Your task to perform on an android device: turn off improve location accuracy Image 0: 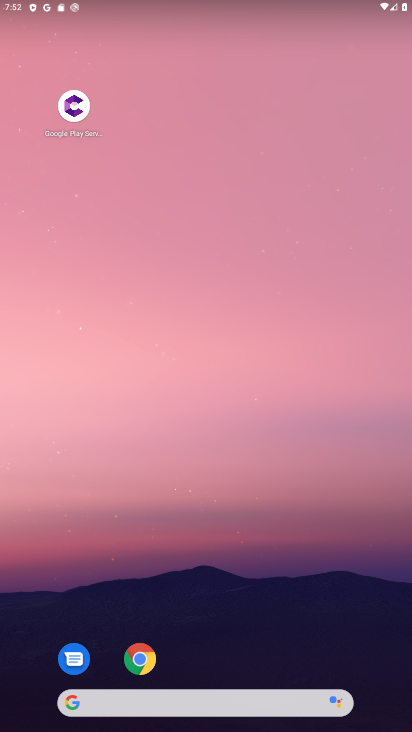
Step 0: drag from (273, 557) to (319, 264)
Your task to perform on an android device: turn off improve location accuracy Image 1: 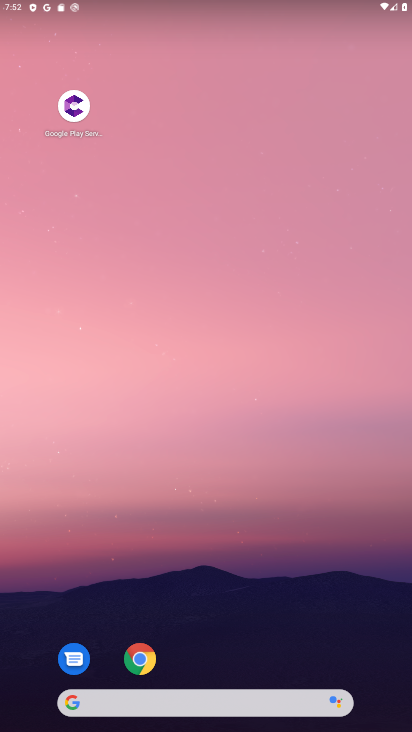
Step 1: drag from (313, 615) to (283, 160)
Your task to perform on an android device: turn off improve location accuracy Image 2: 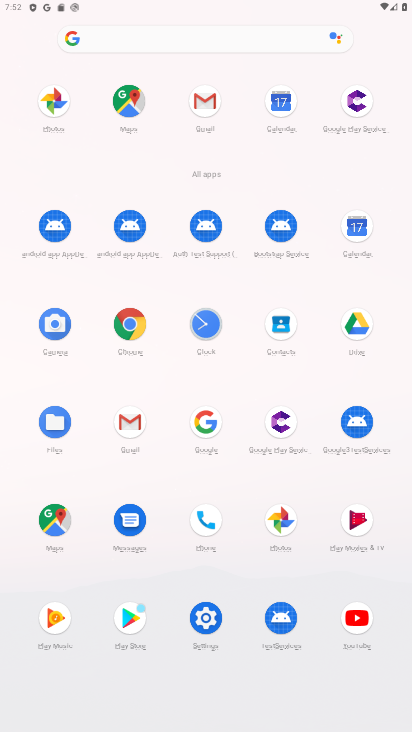
Step 2: click (194, 619)
Your task to perform on an android device: turn off improve location accuracy Image 3: 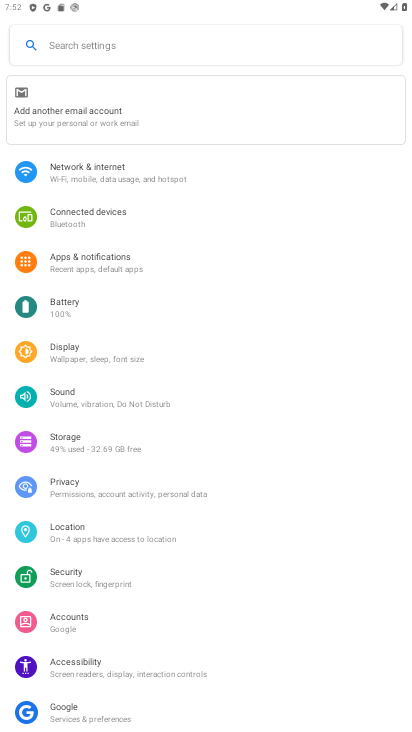
Step 3: click (56, 526)
Your task to perform on an android device: turn off improve location accuracy Image 4: 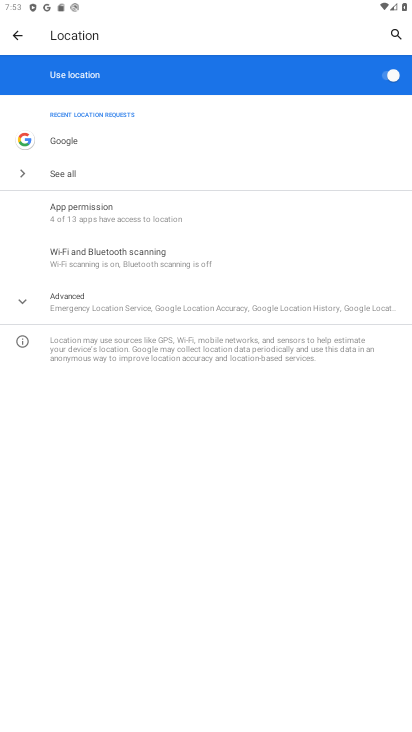
Step 4: click (390, 77)
Your task to perform on an android device: turn off improve location accuracy Image 5: 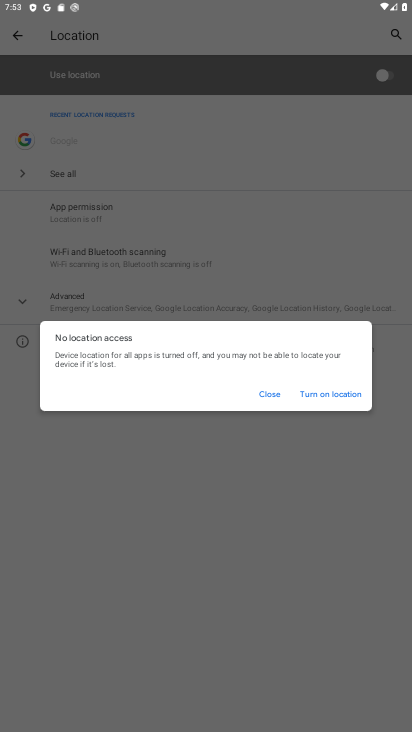
Step 5: task complete